Your task to perform on an android device: turn on notifications settings in the gmail app Image 0: 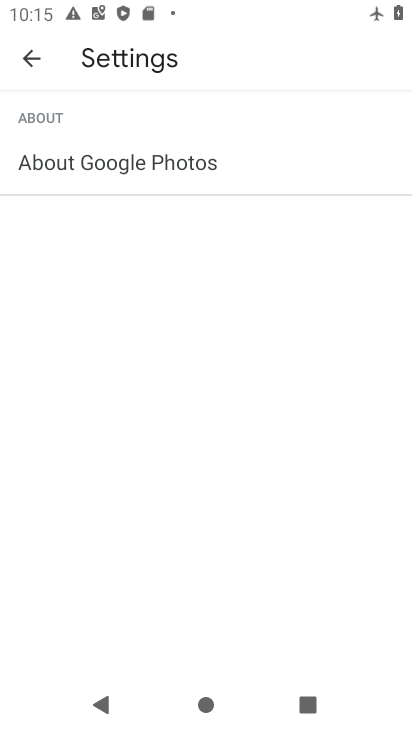
Step 0: press home button
Your task to perform on an android device: turn on notifications settings in the gmail app Image 1: 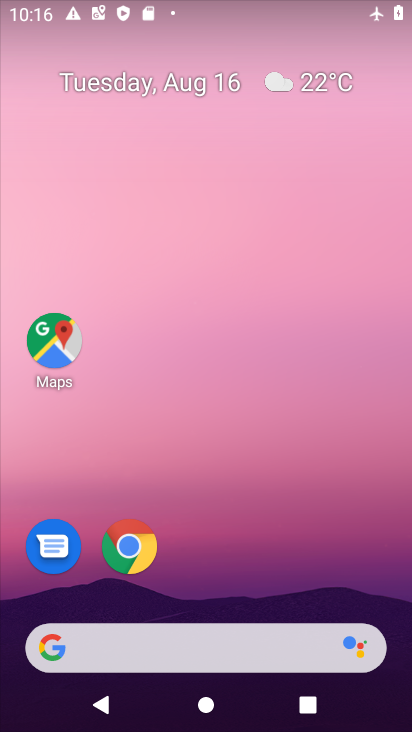
Step 1: drag from (240, 550) to (297, 3)
Your task to perform on an android device: turn on notifications settings in the gmail app Image 2: 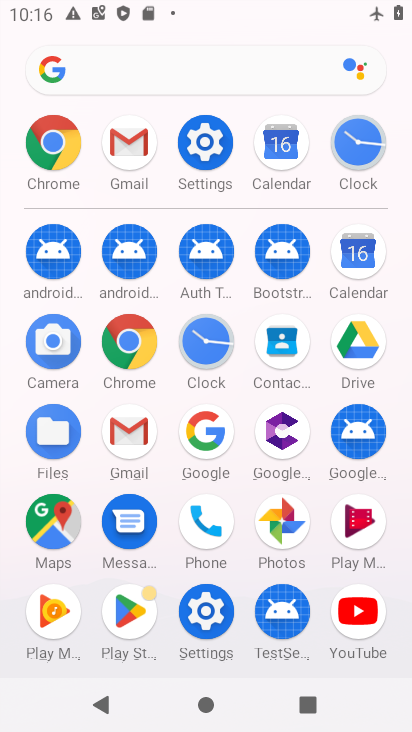
Step 2: click (134, 147)
Your task to perform on an android device: turn on notifications settings in the gmail app Image 3: 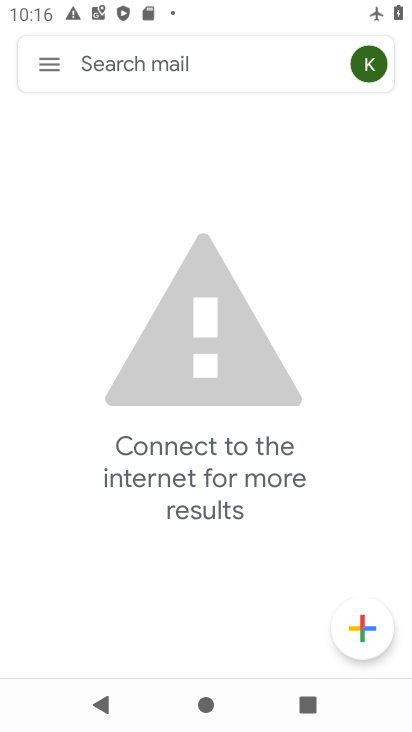
Step 3: click (53, 61)
Your task to perform on an android device: turn on notifications settings in the gmail app Image 4: 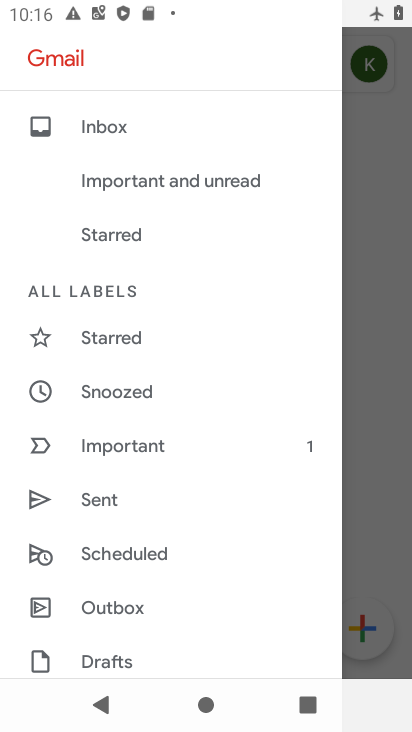
Step 4: drag from (124, 526) to (223, 0)
Your task to perform on an android device: turn on notifications settings in the gmail app Image 5: 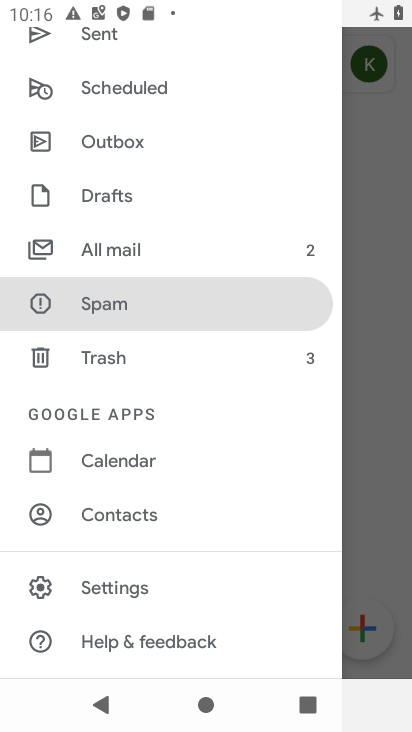
Step 5: click (113, 580)
Your task to perform on an android device: turn on notifications settings in the gmail app Image 6: 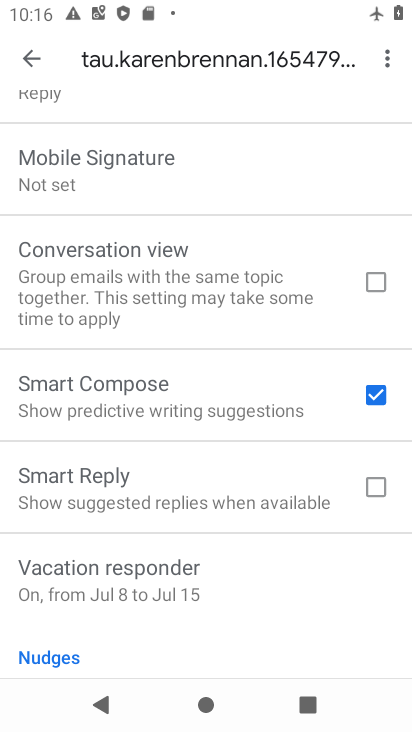
Step 6: drag from (190, 165) to (154, 575)
Your task to perform on an android device: turn on notifications settings in the gmail app Image 7: 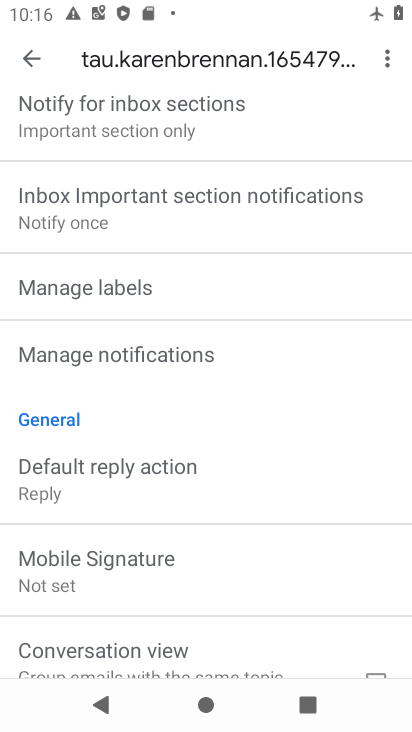
Step 7: click (232, 350)
Your task to perform on an android device: turn on notifications settings in the gmail app Image 8: 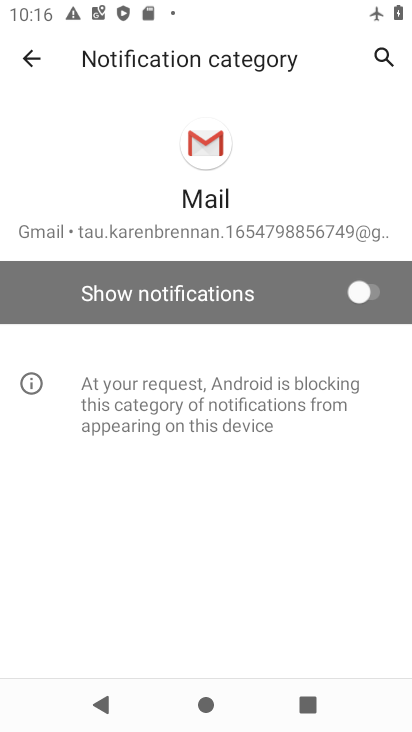
Step 8: click (368, 292)
Your task to perform on an android device: turn on notifications settings in the gmail app Image 9: 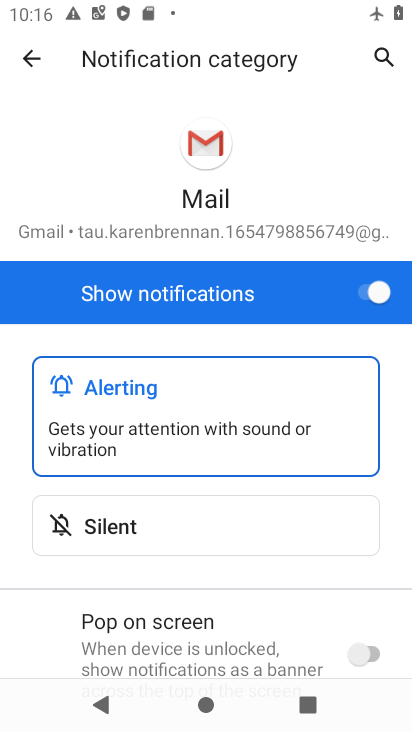
Step 9: task complete